Your task to perform on an android device: turn vacation reply on in the gmail app Image 0: 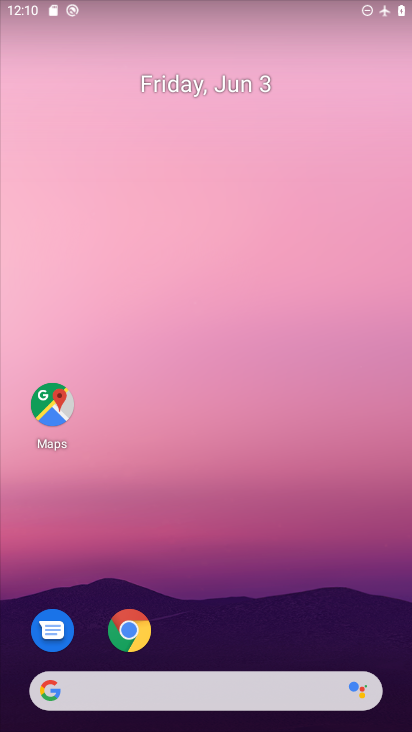
Step 0: drag from (238, 620) to (180, 185)
Your task to perform on an android device: turn vacation reply on in the gmail app Image 1: 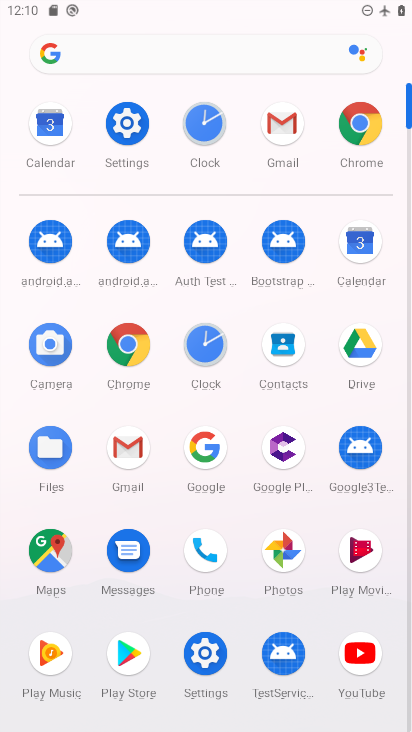
Step 1: click (289, 131)
Your task to perform on an android device: turn vacation reply on in the gmail app Image 2: 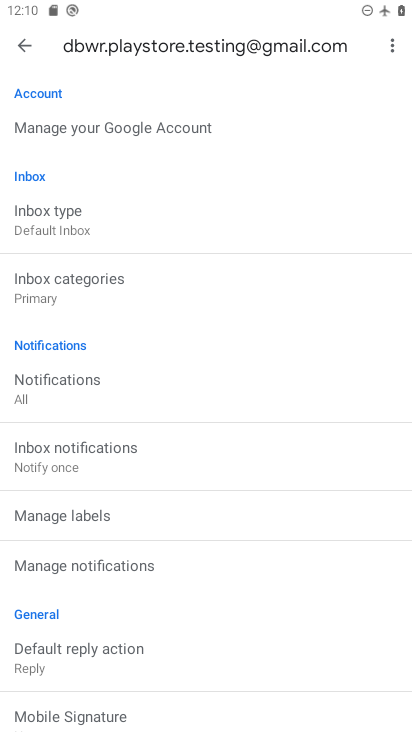
Step 2: drag from (193, 637) to (185, 239)
Your task to perform on an android device: turn vacation reply on in the gmail app Image 3: 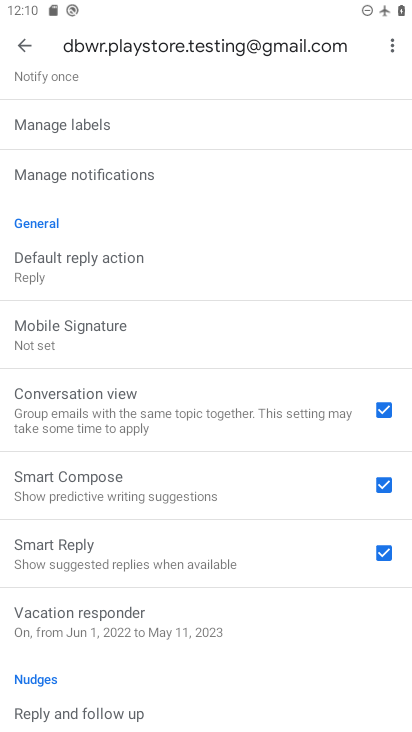
Step 3: drag from (190, 615) to (151, 202)
Your task to perform on an android device: turn vacation reply on in the gmail app Image 4: 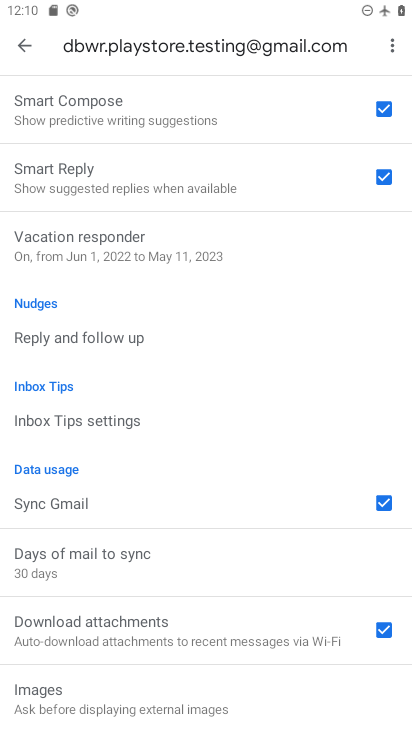
Step 4: drag from (163, 502) to (160, 414)
Your task to perform on an android device: turn vacation reply on in the gmail app Image 5: 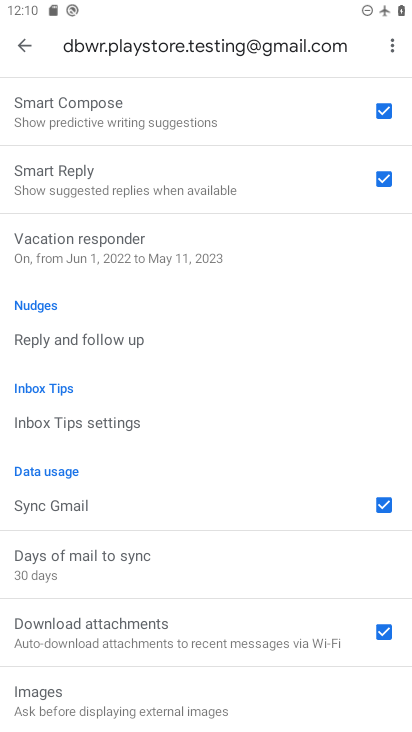
Step 5: click (162, 239)
Your task to perform on an android device: turn vacation reply on in the gmail app Image 6: 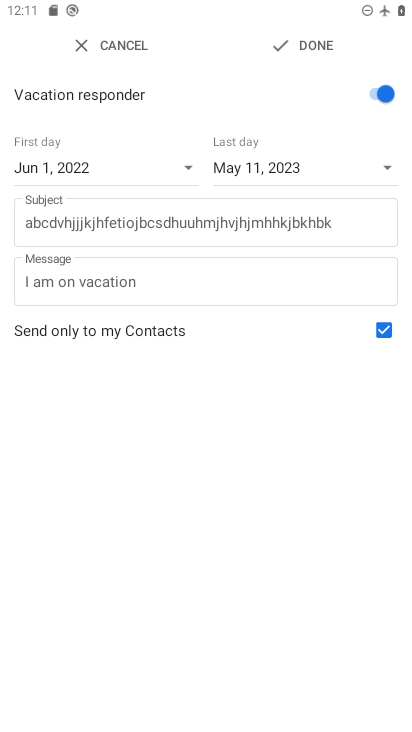
Step 6: click (321, 67)
Your task to perform on an android device: turn vacation reply on in the gmail app Image 7: 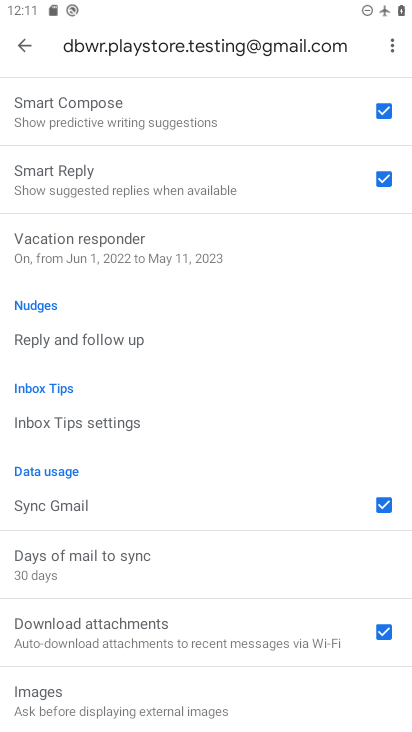
Step 7: task complete